Your task to perform on an android device: delete location history Image 0: 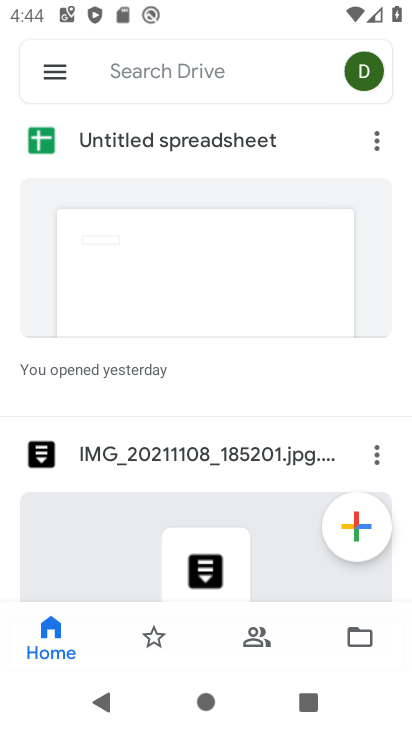
Step 0: press home button
Your task to perform on an android device: delete location history Image 1: 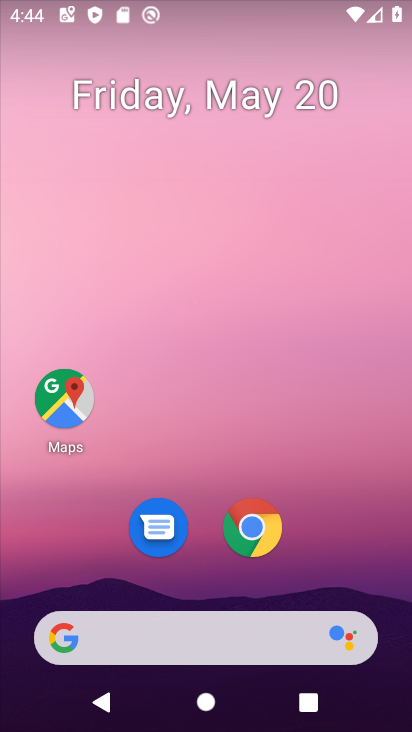
Step 1: drag from (213, 532) to (260, 123)
Your task to perform on an android device: delete location history Image 2: 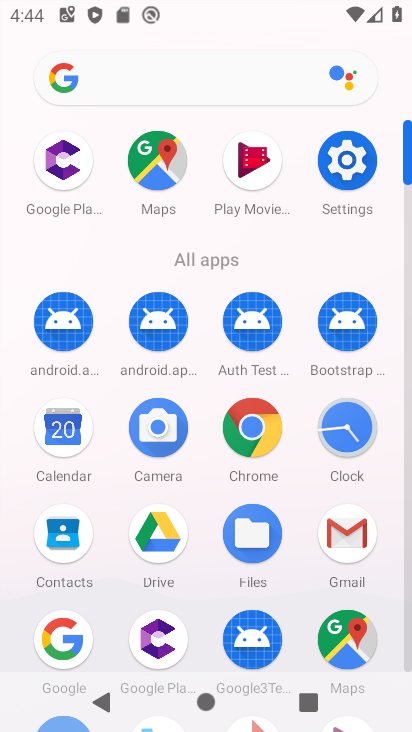
Step 2: click (365, 172)
Your task to perform on an android device: delete location history Image 3: 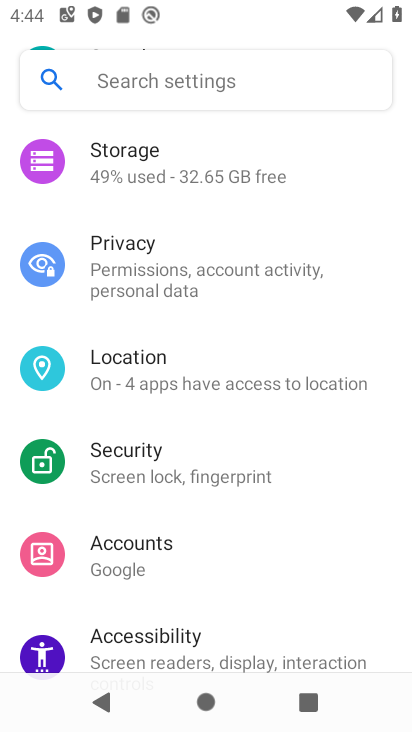
Step 3: click (136, 372)
Your task to perform on an android device: delete location history Image 4: 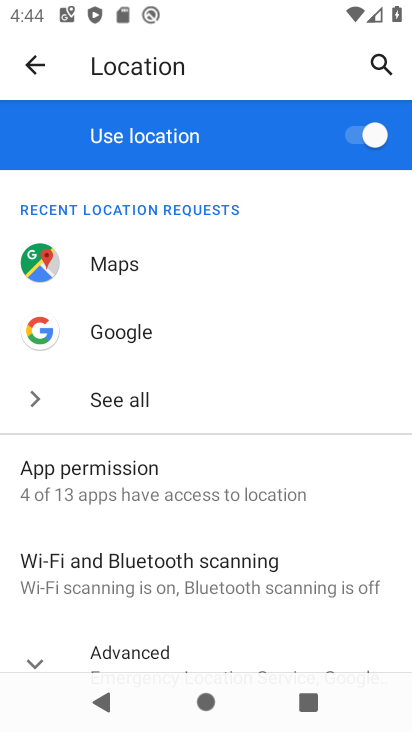
Step 4: drag from (81, 601) to (120, 242)
Your task to perform on an android device: delete location history Image 5: 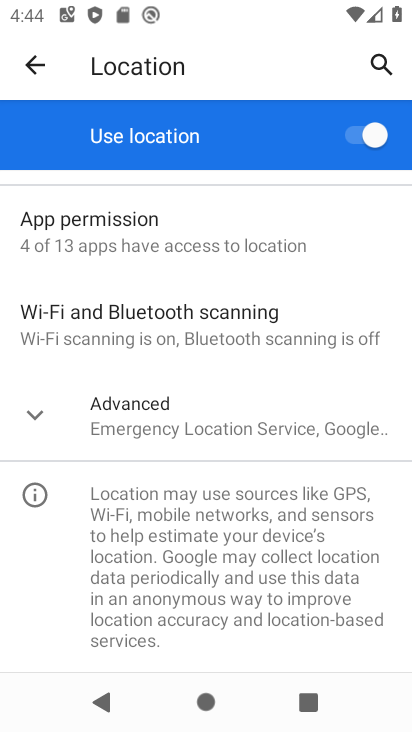
Step 5: click (129, 421)
Your task to perform on an android device: delete location history Image 6: 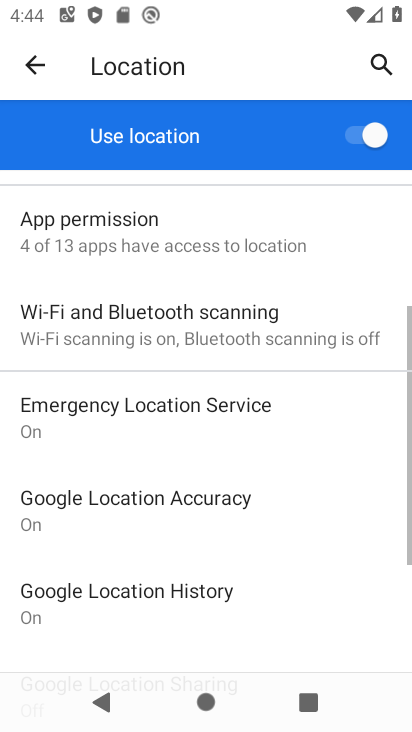
Step 6: drag from (178, 619) to (196, 340)
Your task to perform on an android device: delete location history Image 7: 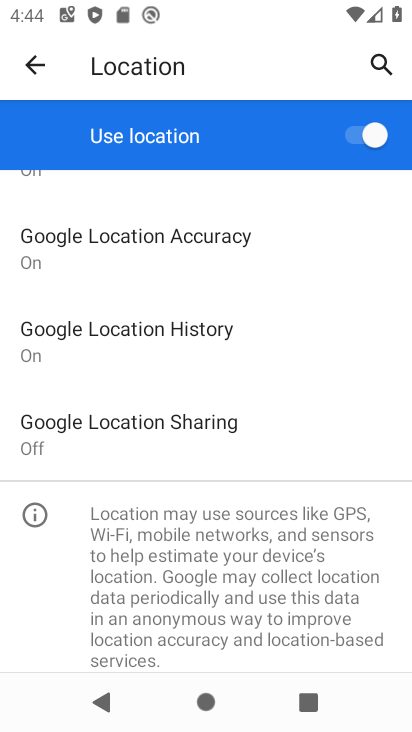
Step 7: click (142, 333)
Your task to perform on an android device: delete location history Image 8: 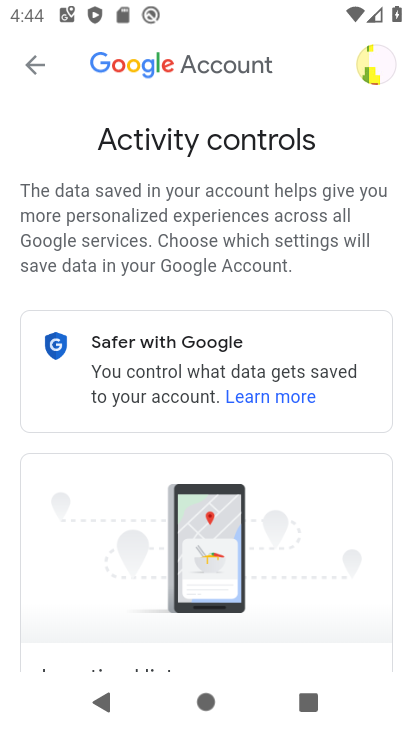
Step 8: drag from (145, 570) to (219, 140)
Your task to perform on an android device: delete location history Image 9: 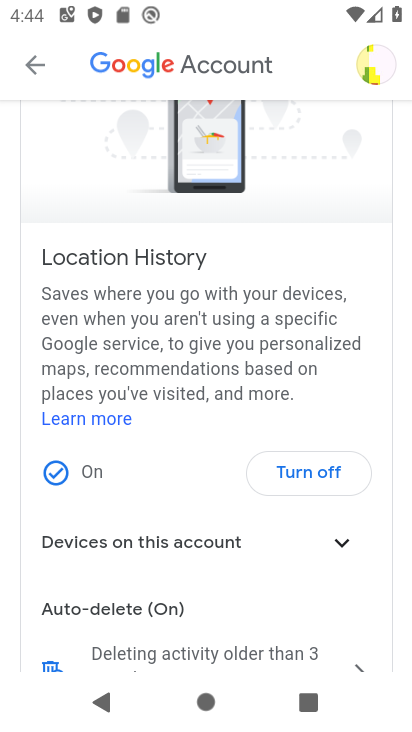
Step 9: drag from (235, 358) to (240, 300)
Your task to perform on an android device: delete location history Image 10: 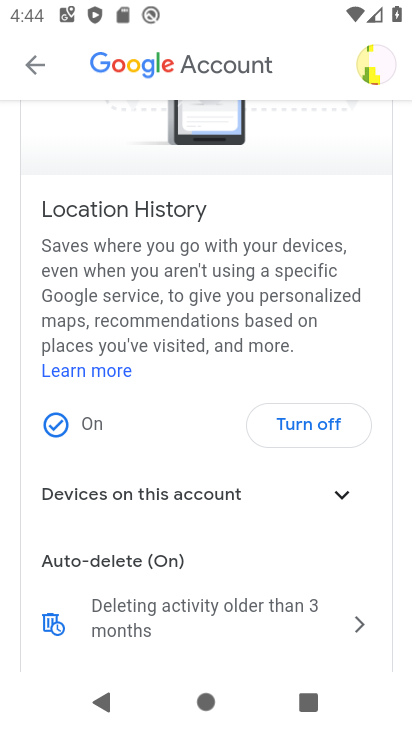
Step 10: click (295, 610)
Your task to perform on an android device: delete location history Image 11: 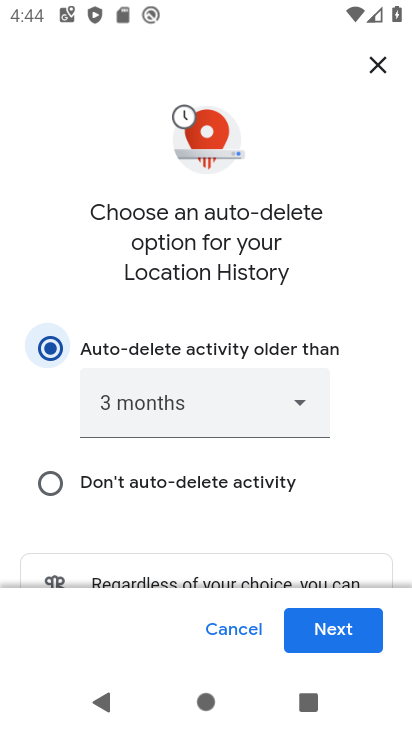
Step 11: click (308, 622)
Your task to perform on an android device: delete location history Image 12: 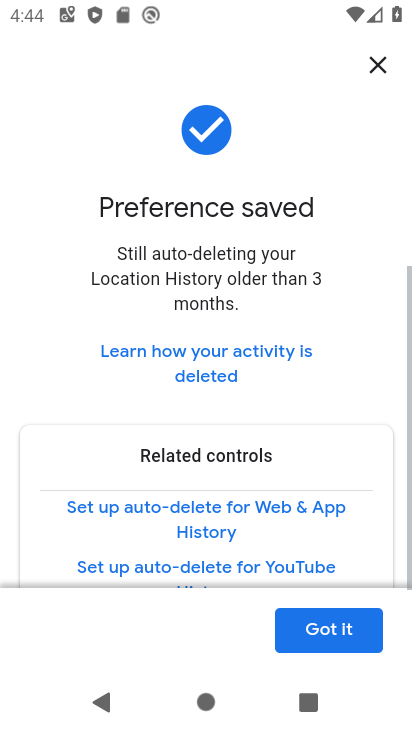
Step 12: click (340, 636)
Your task to perform on an android device: delete location history Image 13: 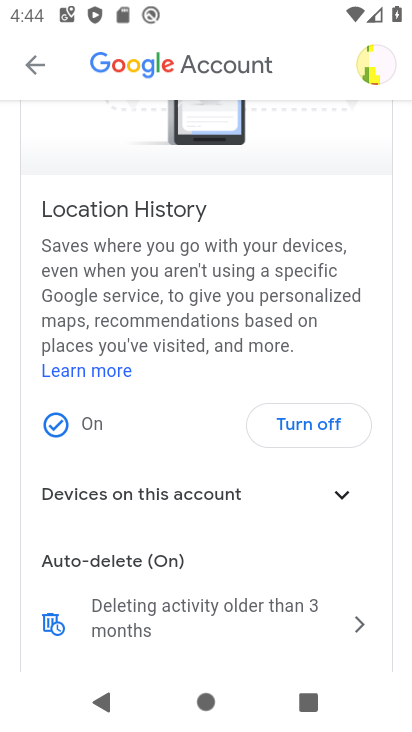
Step 13: task complete